Your task to perform on an android device: Open Google Chrome Image 0: 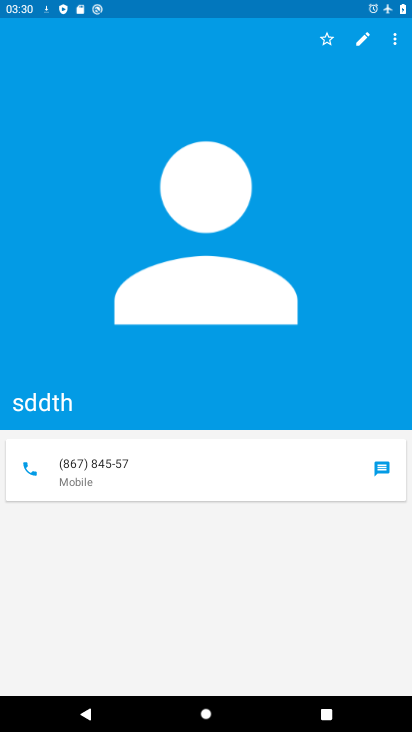
Step 0: press home button
Your task to perform on an android device: Open Google Chrome Image 1: 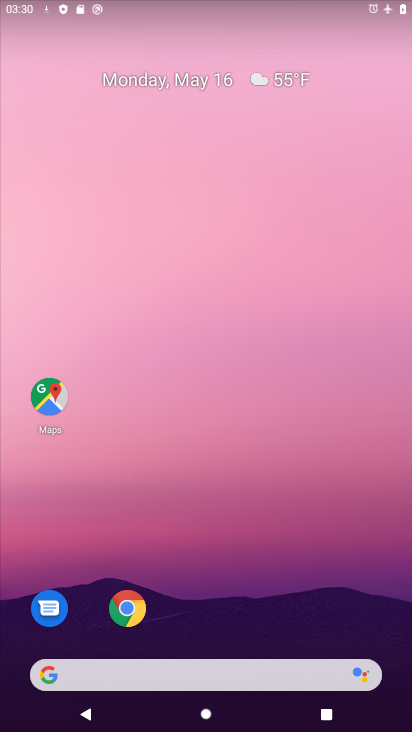
Step 1: click (119, 603)
Your task to perform on an android device: Open Google Chrome Image 2: 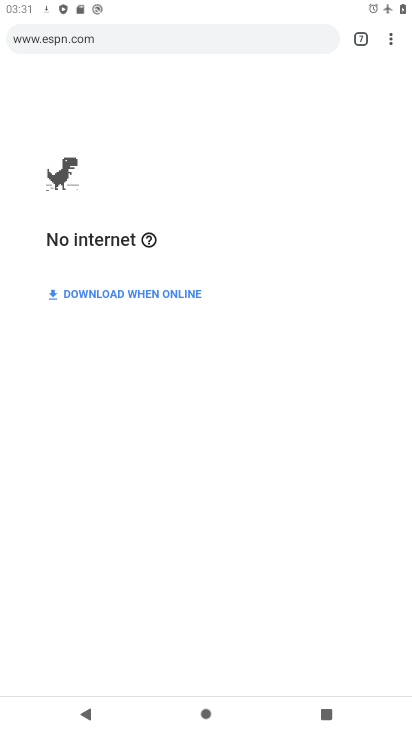
Step 2: task complete